Your task to perform on an android device: Add razer nari to the cart on ebay, then select checkout. Image 0: 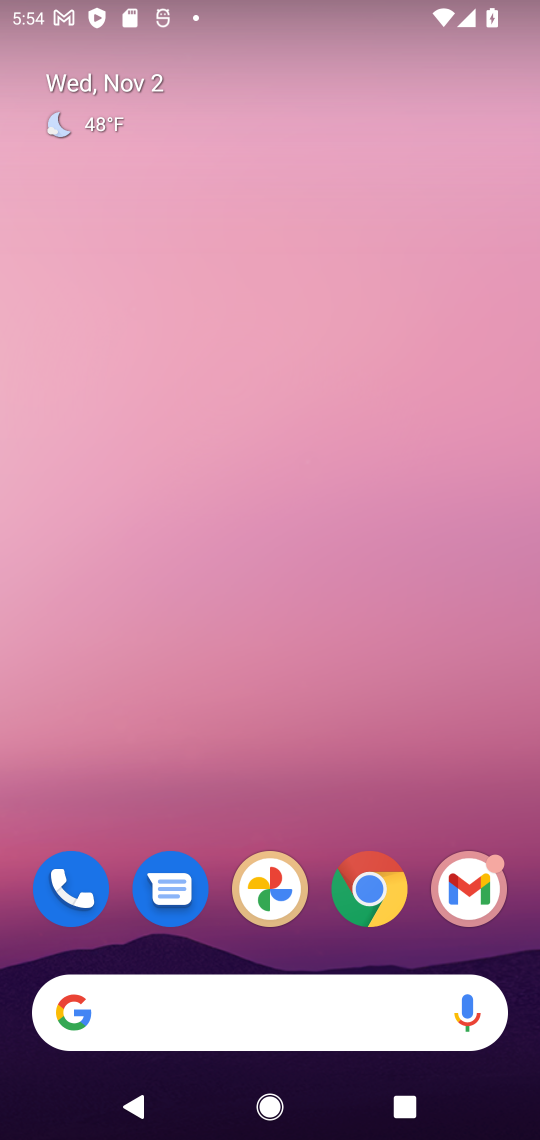
Step 0: click (368, 887)
Your task to perform on an android device: Add razer nari to the cart on ebay, then select checkout. Image 1: 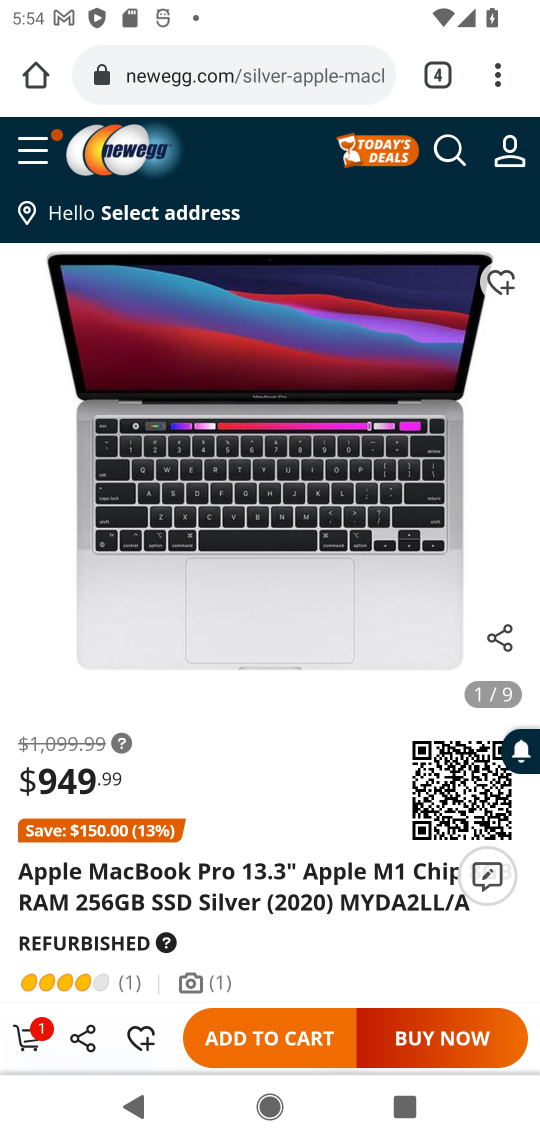
Step 1: click (280, 67)
Your task to perform on an android device: Add razer nari to the cart on ebay, then select checkout. Image 2: 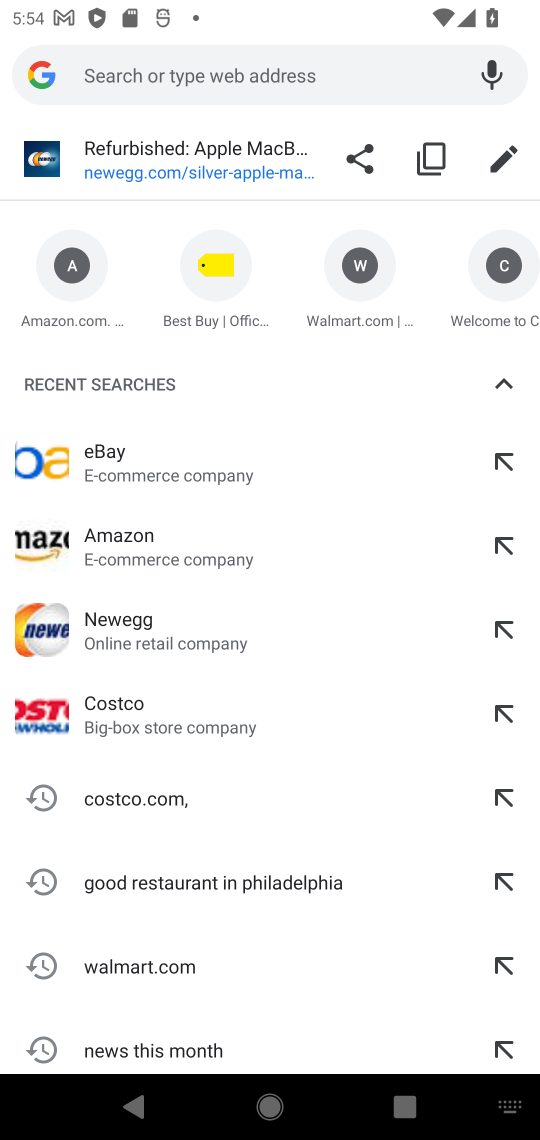
Step 2: click (92, 454)
Your task to perform on an android device: Add razer nari to the cart on ebay, then select checkout. Image 3: 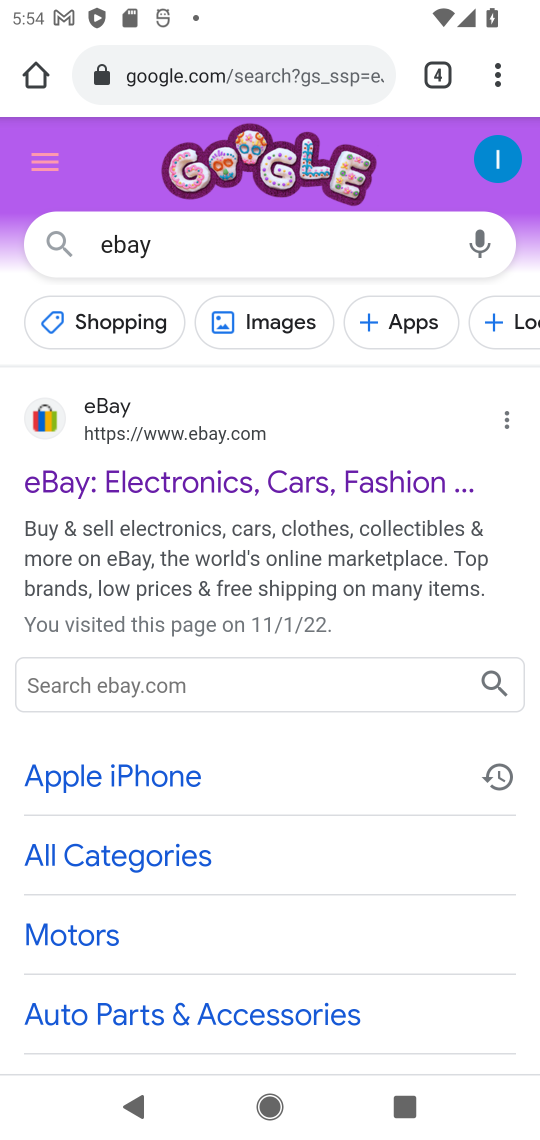
Step 3: click (87, 484)
Your task to perform on an android device: Add razer nari to the cart on ebay, then select checkout. Image 4: 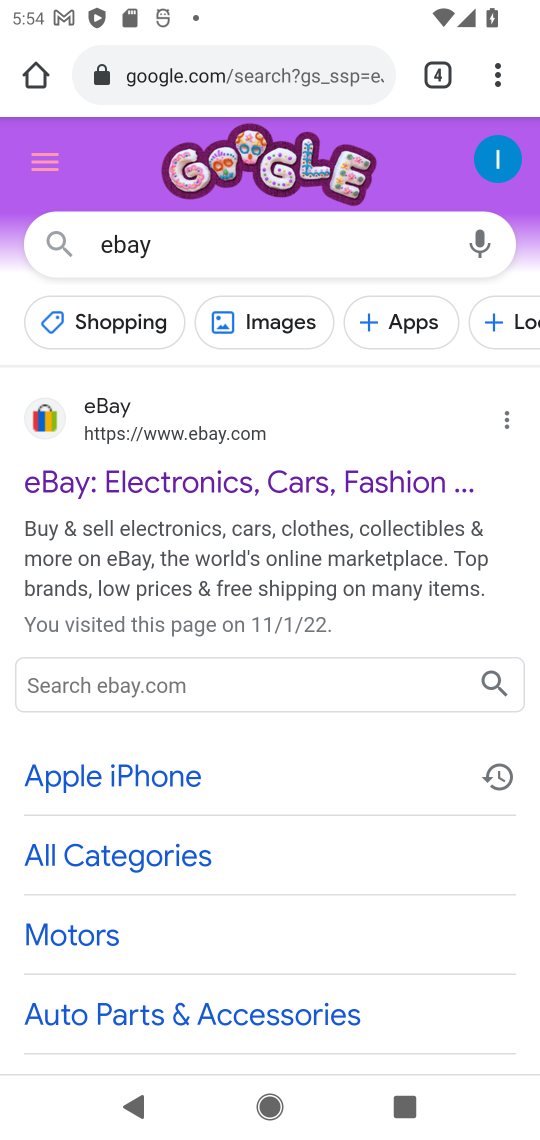
Step 4: click (185, 480)
Your task to perform on an android device: Add razer nari to the cart on ebay, then select checkout. Image 5: 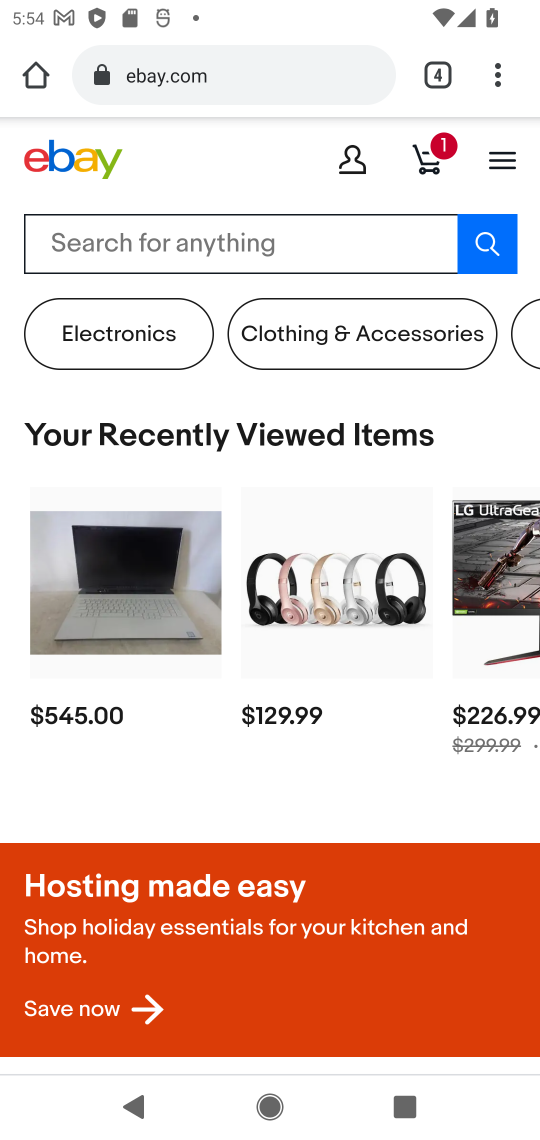
Step 5: click (111, 242)
Your task to perform on an android device: Add razer nari to the cart on ebay, then select checkout. Image 6: 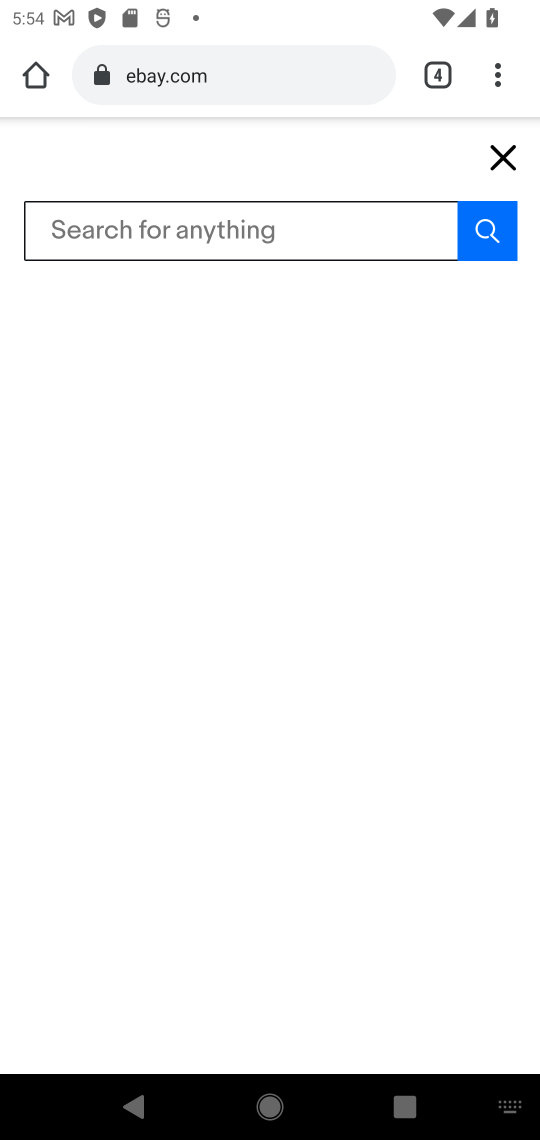
Step 6: type "razer nari"
Your task to perform on an android device: Add razer nari to the cart on ebay, then select checkout. Image 7: 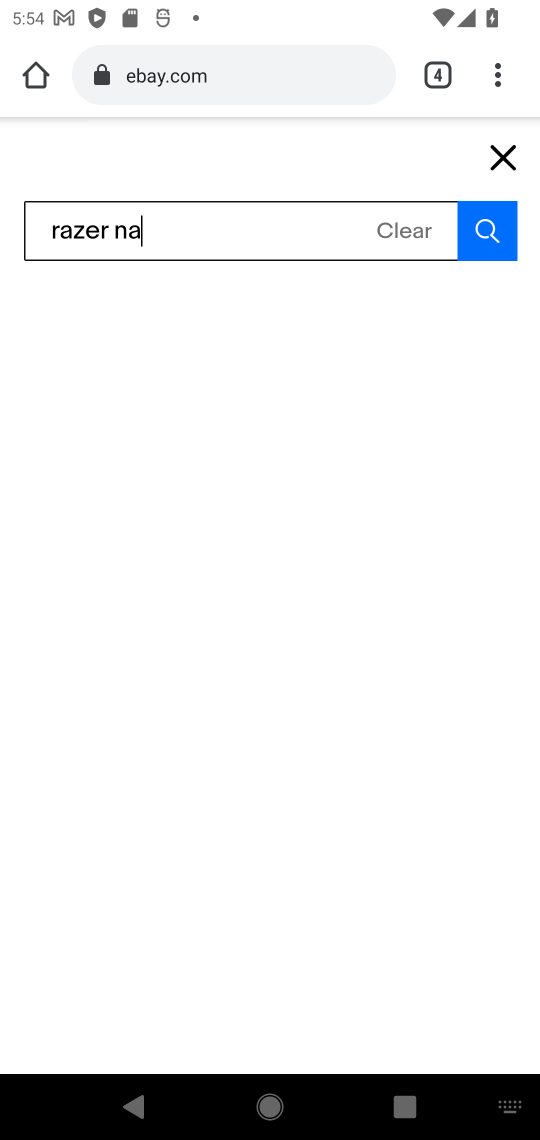
Step 7: press enter
Your task to perform on an android device: Add razer nari to the cart on ebay, then select checkout. Image 8: 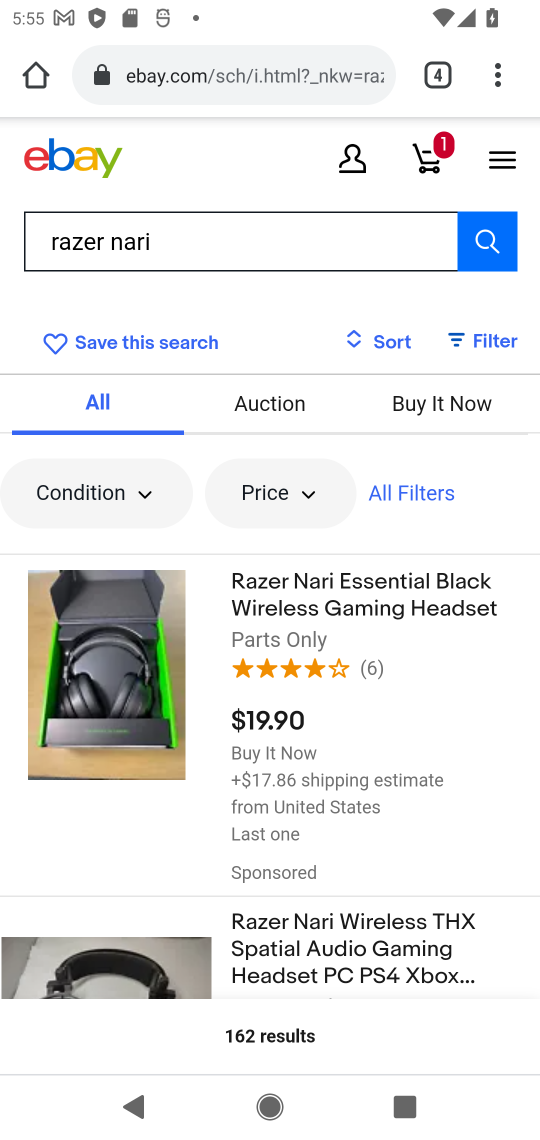
Step 8: click (356, 626)
Your task to perform on an android device: Add razer nari to the cart on ebay, then select checkout. Image 9: 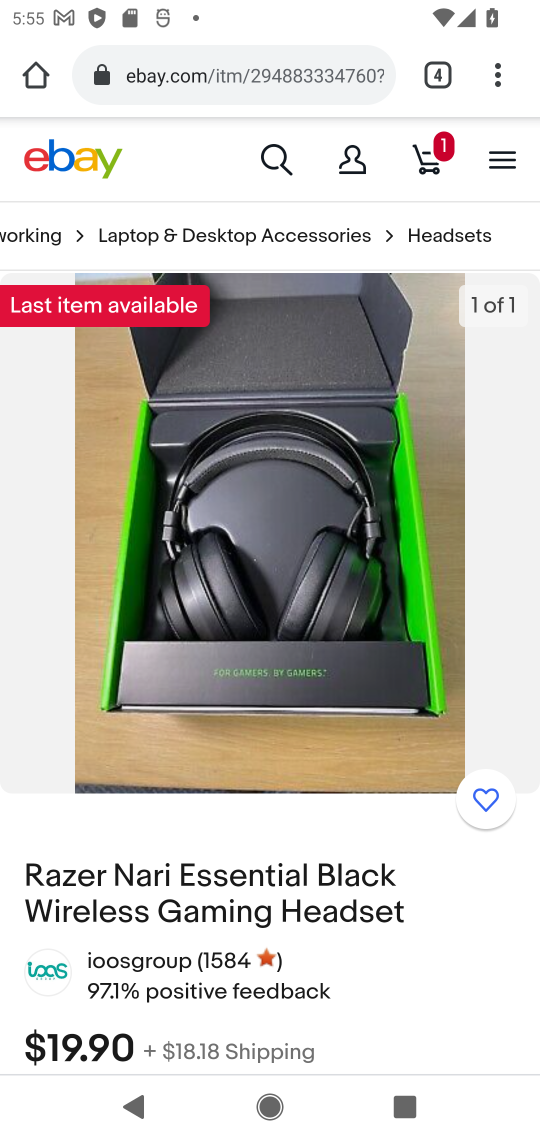
Step 9: drag from (238, 939) to (354, 192)
Your task to perform on an android device: Add razer nari to the cart on ebay, then select checkout. Image 10: 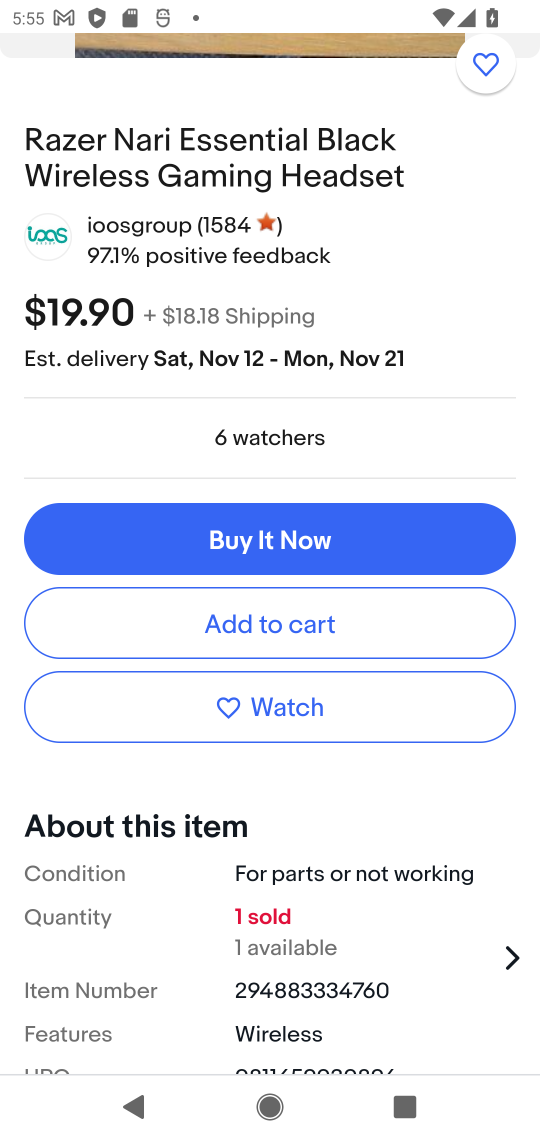
Step 10: click (282, 623)
Your task to perform on an android device: Add razer nari to the cart on ebay, then select checkout. Image 11: 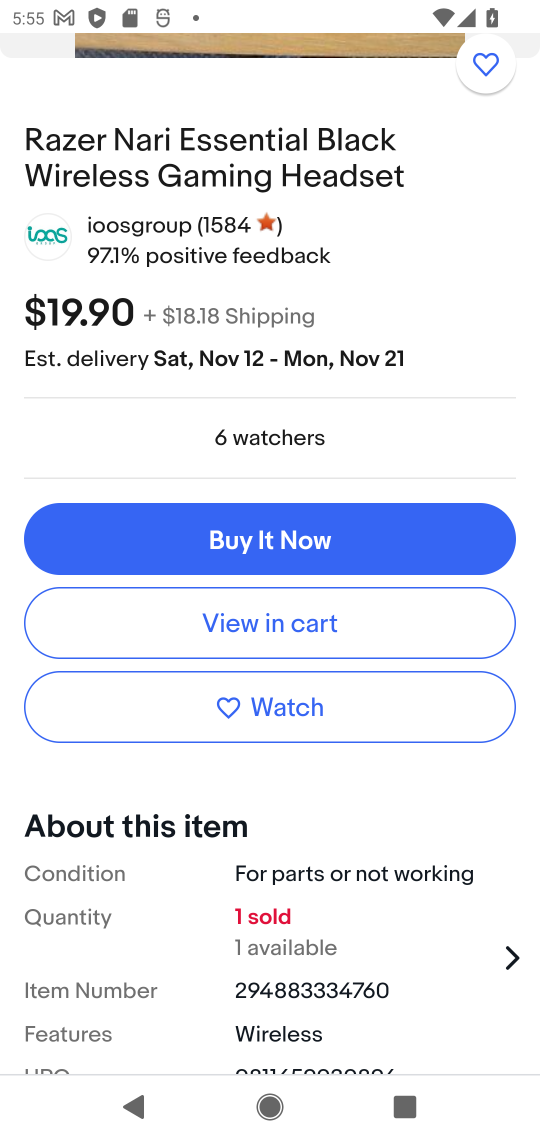
Step 11: click (305, 619)
Your task to perform on an android device: Add razer nari to the cart on ebay, then select checkout. Image 12: 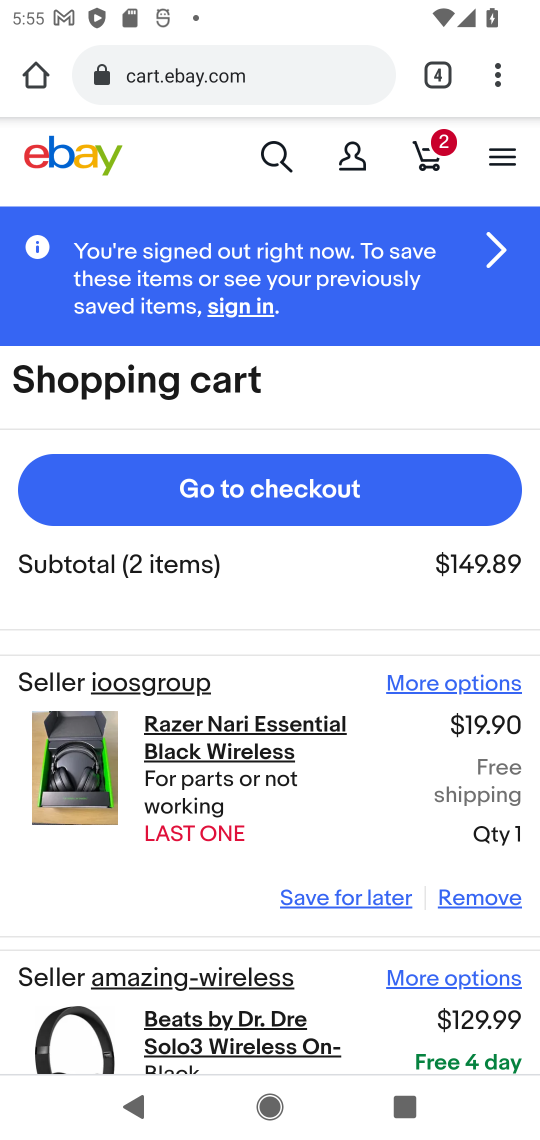
Step 12: drag from (307, 840) to (376, 463)
Your task to perform on an android device: Add razer nari to the cart on ebay, then select checkout. Image 13: 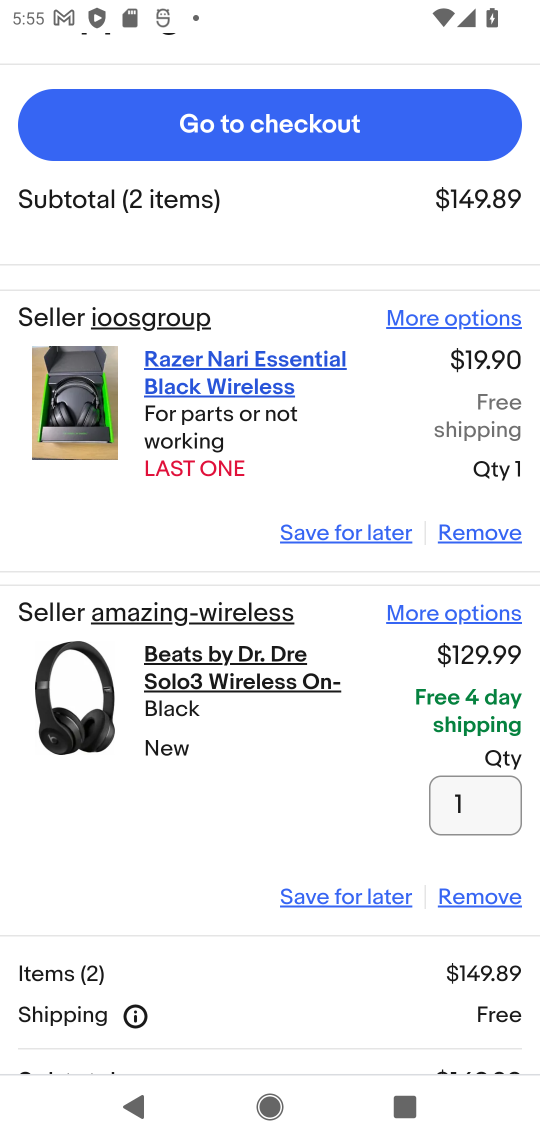
Step 13: click (472, 886)
Your task to perform on an android device: Add razer nari to the cart on ebay, then select checkout. Image 14: 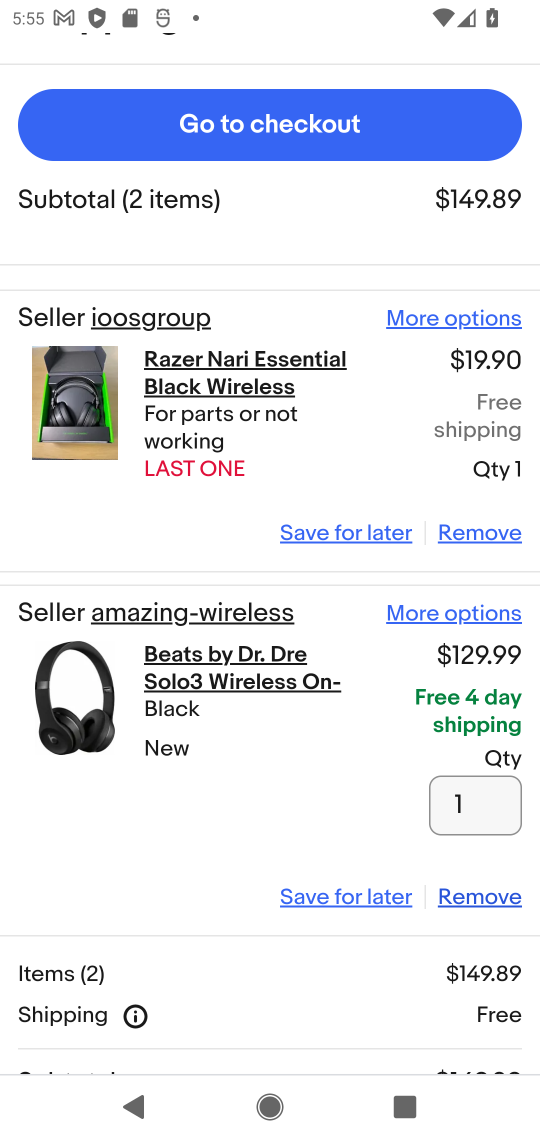
Step 14: click (472, 898)
Your task to perform on an android device: Add razer nari to the cart on ebay, then select checkout. Image 15: 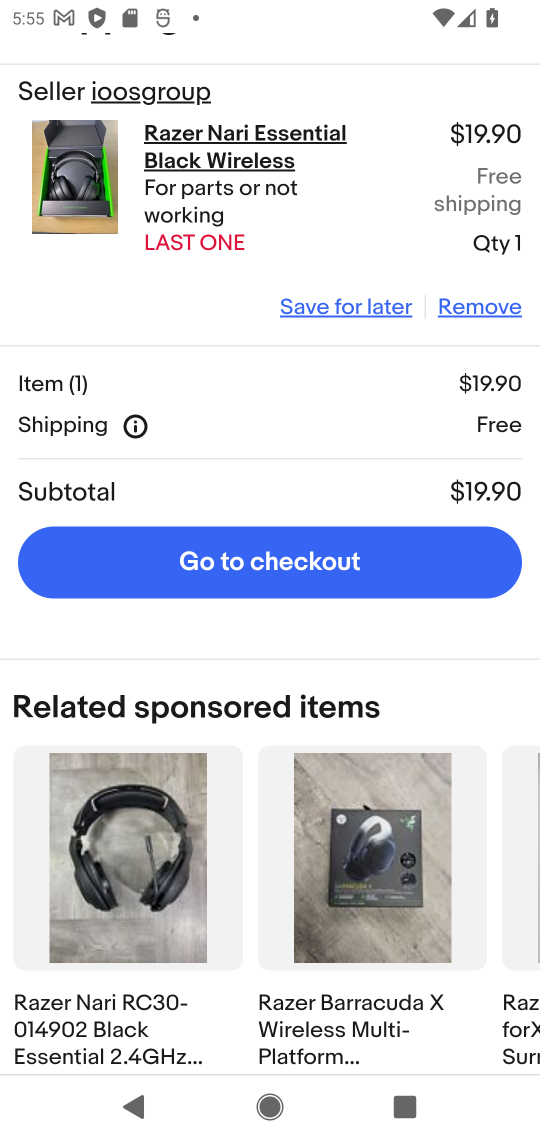
Step 15: click (318, 569)
Your task to perform on an android device: Add razer nari to the cart on ebay, then select checkout. Image 16: 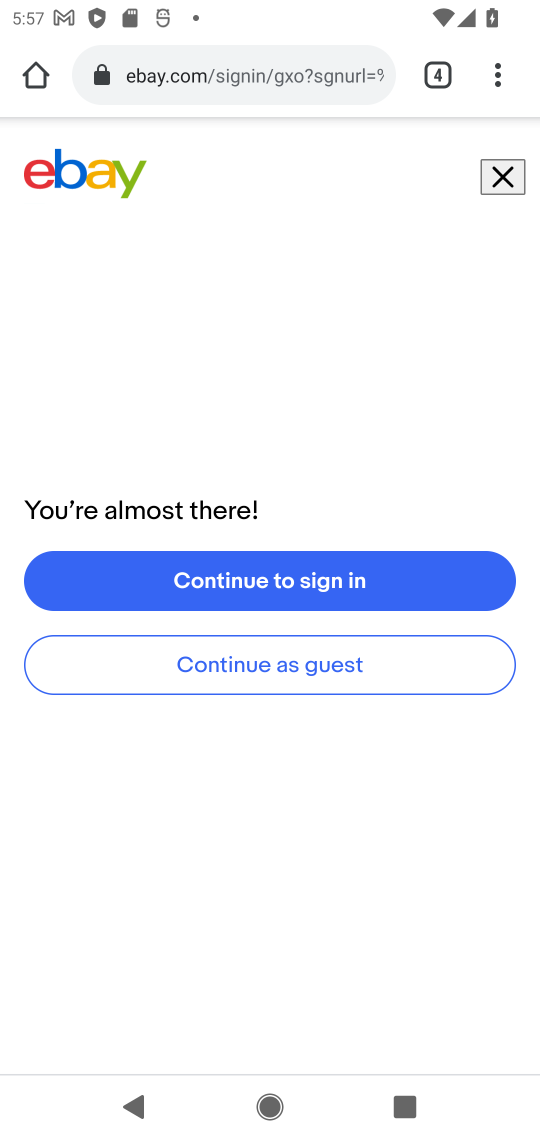
Step 16: task complete